Your task to perform on an android device: Open eBay Image 0: 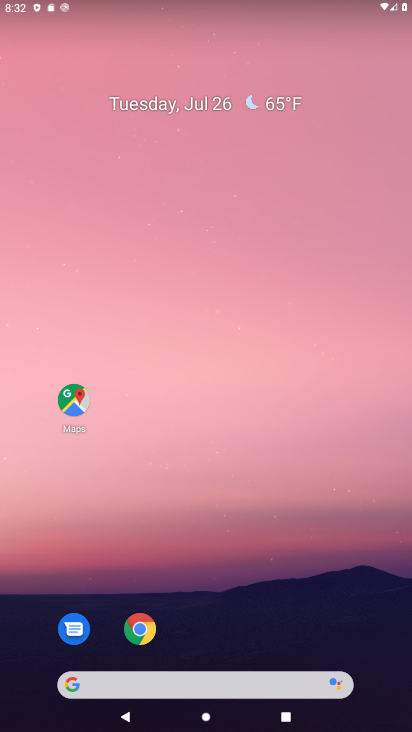
Step 0: click (138, 625)
Your task to perform on an android device: Open eBay Image 1: 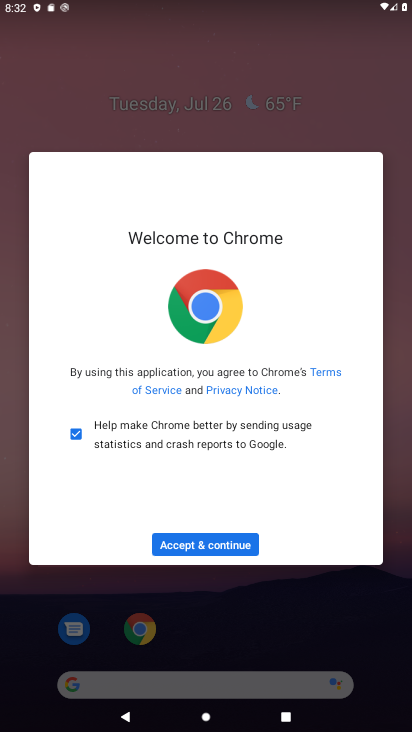
Step 1: click (214, 543)
Your task to perform on an android device: Open eBay Image 2: 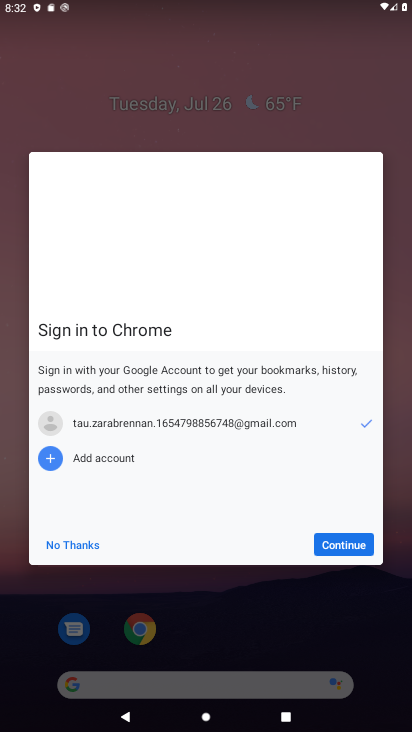
Step 2: click (347, 542)
Your task to perform on an android device: Open eBay Image 3: 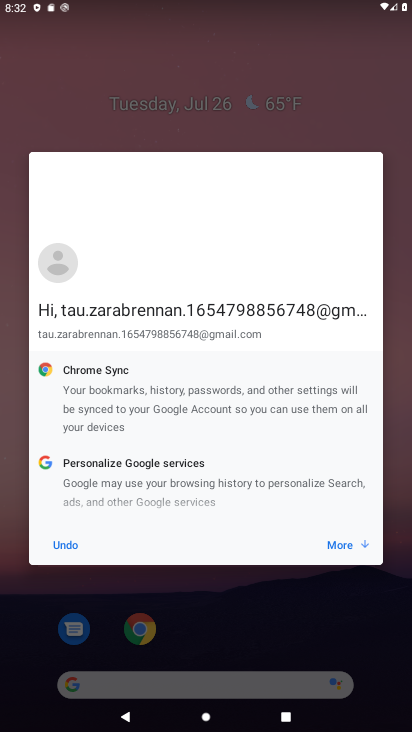
Step 3: click (347, 542)
Your task to perform on an android device: Open eBay Image 4: 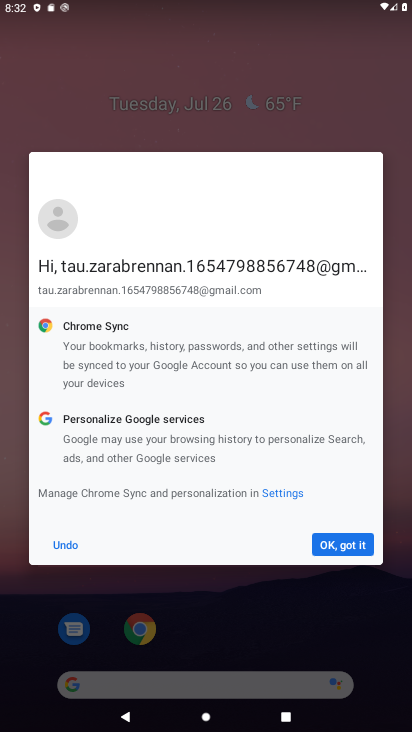
Step 4: click (347, 542)
Your task to perform on an android device: Open eBay Image 5: 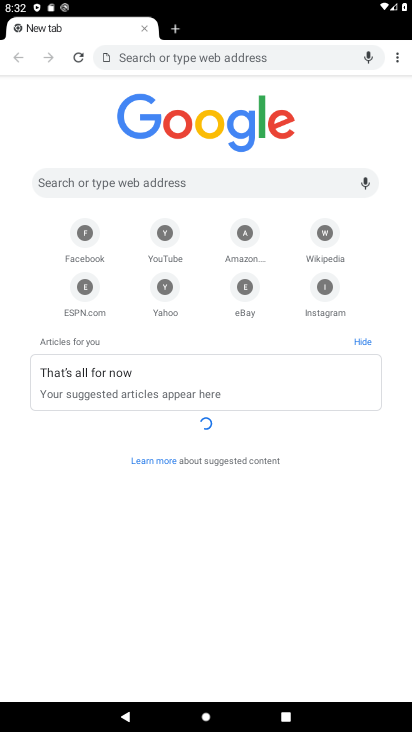
Step 5: click (249, 312)
Your task to perform on an android device: Open eBay Image 6: 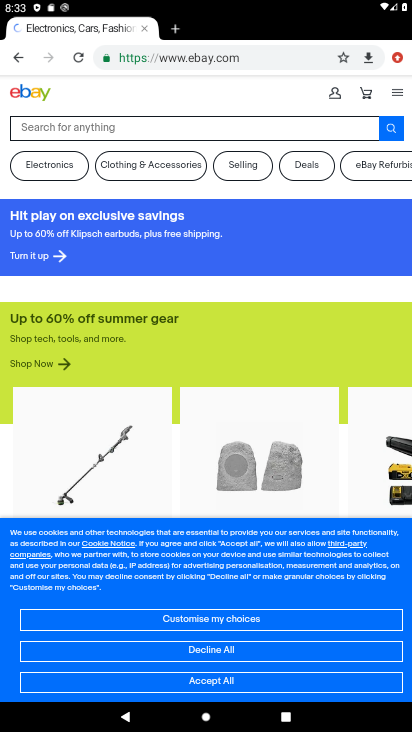
Step 6: task complete